Your task to perform on an android device: open sync settings in chrome Image 0: 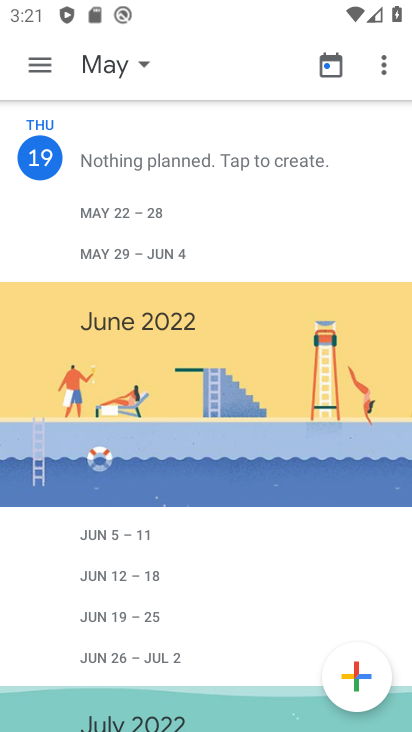
Step 0: press home button
Your task to perform on an android device: open sync settings in chrome Image 1: 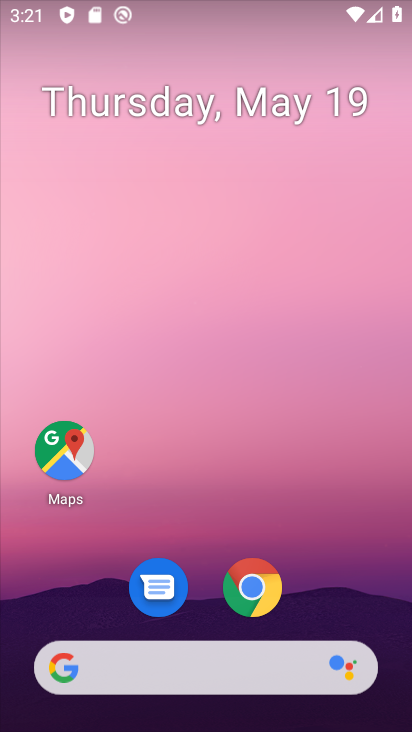
Step 1: drag from (338, 607) to (356, 109)
Your task to perform on an android device: open sync settings in chrome Image 2: 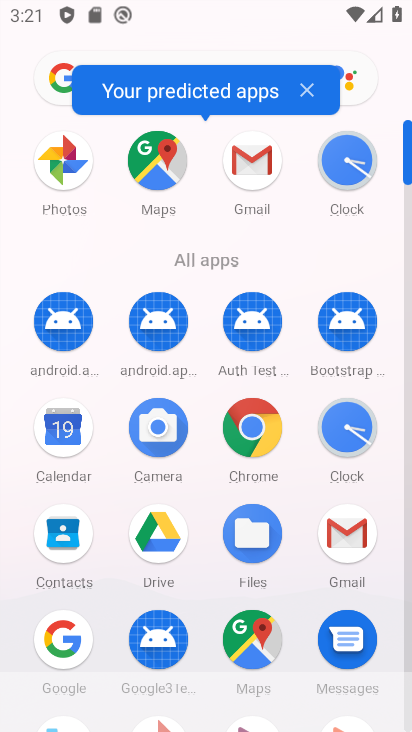
Step 2: click (268, 442)
Your task to perform on an android device: open sync settings in chrome Image 3: 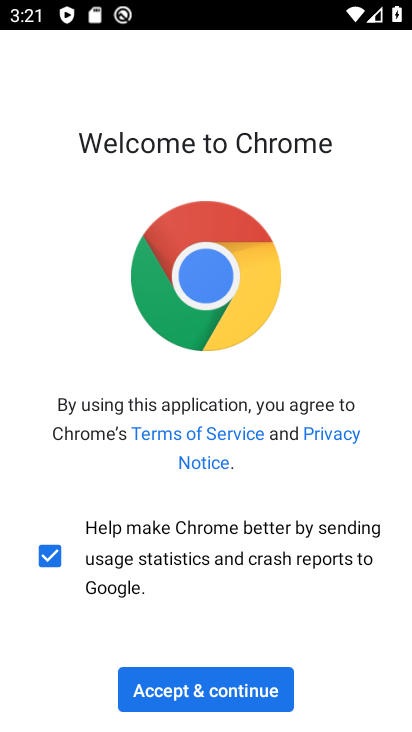
Step 3: click (275, 685)
Your task to perform on an android device: open sync settings in chrome Image 4: 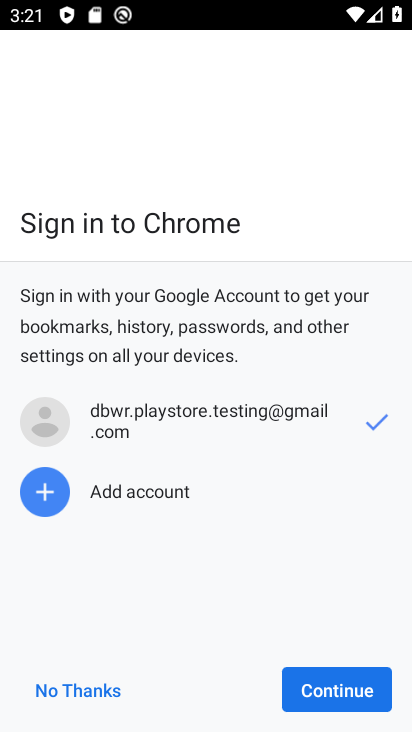
Step 4: click (303, 688)
Your task to perform on an android device: open sync settings in chrome Image 5: 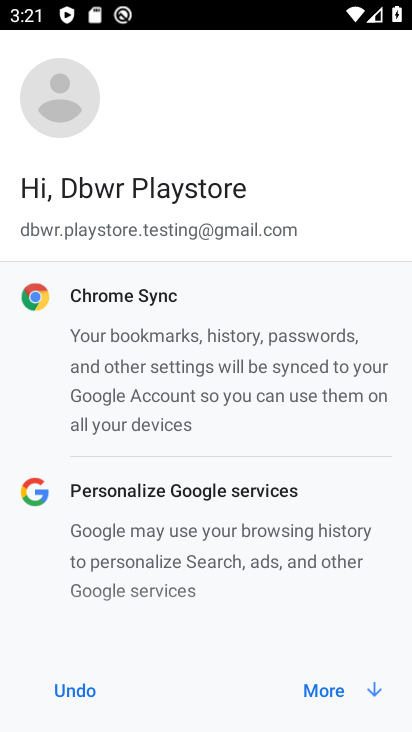
Step 5: click (303, 688)
Your task to perform on an android device: open sync settings in chrome Image 6: 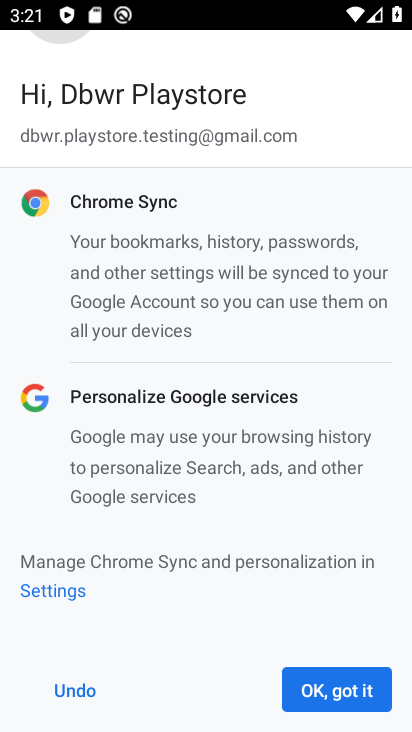
Step 6: click (303, 688)
Your task to perform on an android device: open sync settings in chrome Image 7: 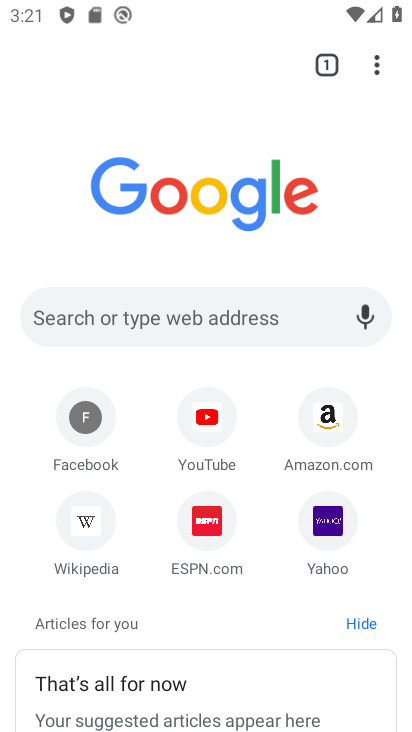
Step 7: click (378, 73)
Your task to perform on an android device: open sync settings in chrome Image 8: 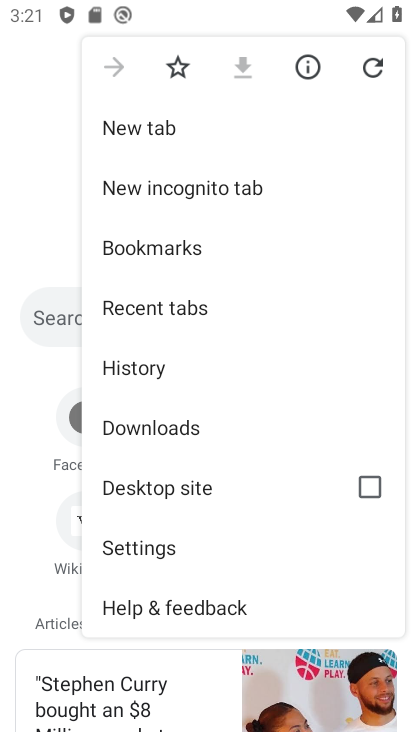
Step 8: drag from (299, 526) to (298, 408)
Your task to perform on an android device: open sync settings in chrome Image 9: 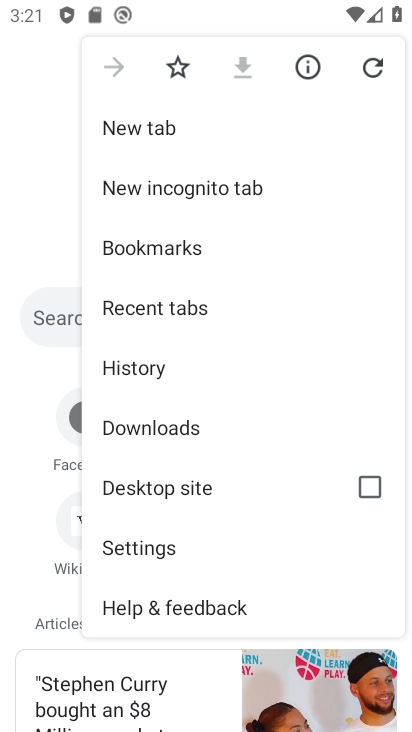
Step 9: click (172, 550)
Your task to perform on an android device: open sync settings in chrome Image 10: 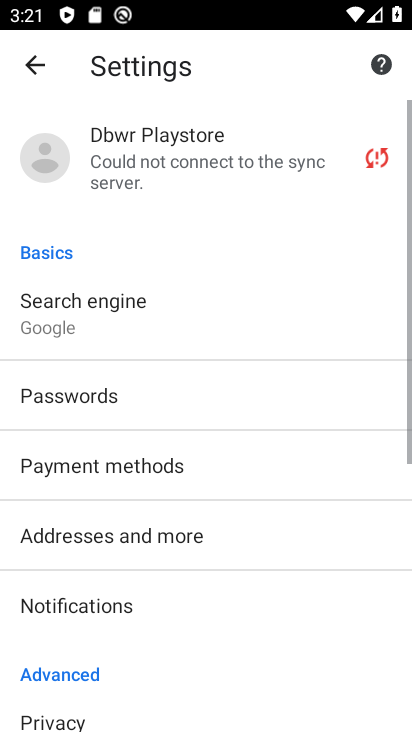
Step 10: drag from (279, 566) to (283, 441)
Your task to perform on an android device: open sync settings in chrome Image 11: 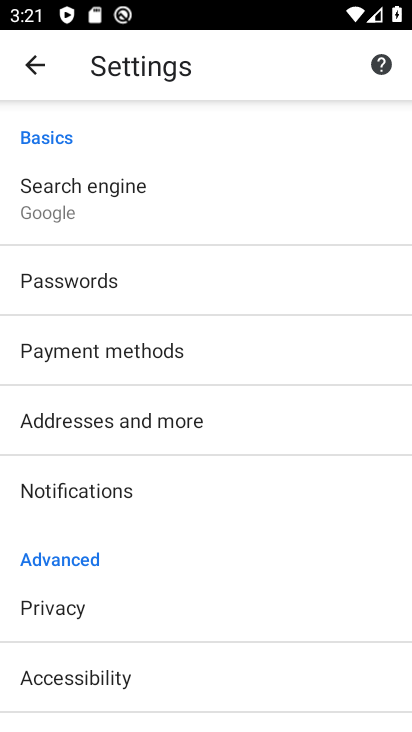
Step 11: drag from (300, 588) to (301, 456)
Your task to perform on an android device: open sync settings in chrome Image 12: 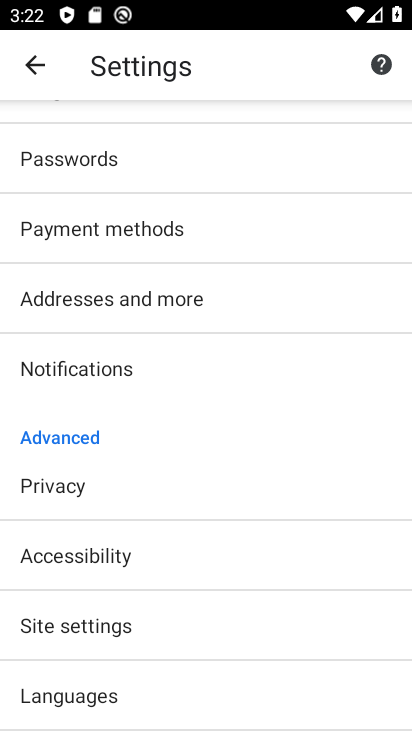
Step 12: drag from (297, 624) to (298, 504)
Your task to perform on an android device: open sync settings in chrome Image 13: 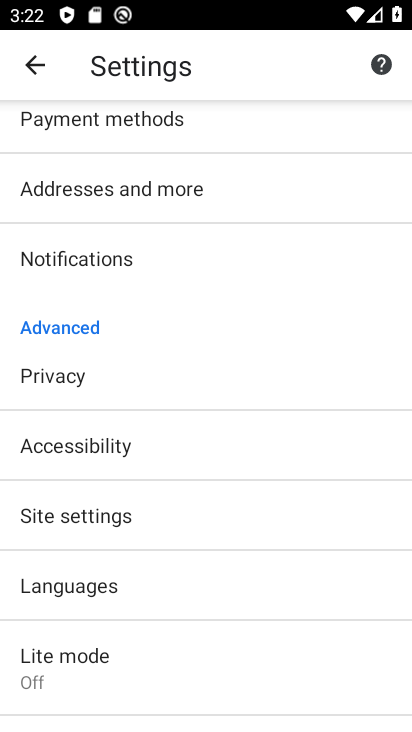
Step 13: drag from (304, 622) to (297, 496)
Your task to perform on an android device: open sync settings in chrome Image 14: 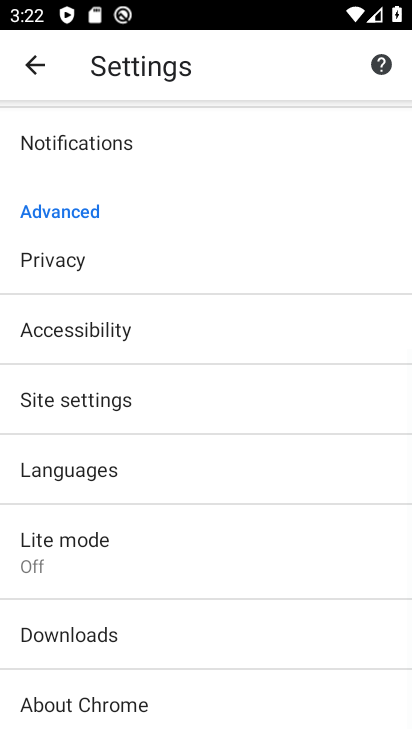
Step 14: drag from (294, 662) to (296, 553)
Your task to perform on an android device: open sync settings in chrome Image 15: 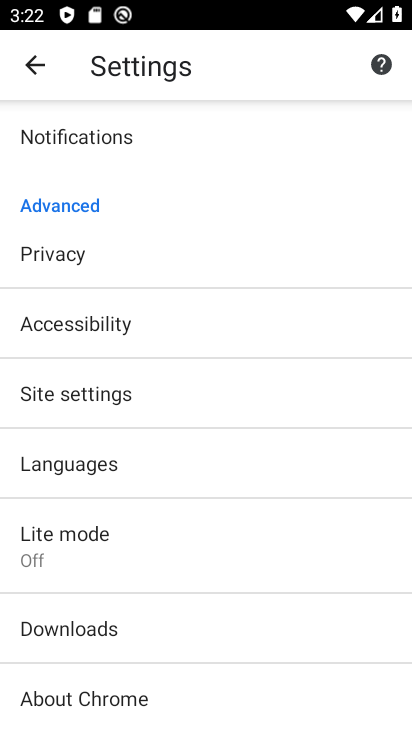
Step 15: click (244, 402)
Your task to perform on an android device: open sync settings in chrome Image 16: 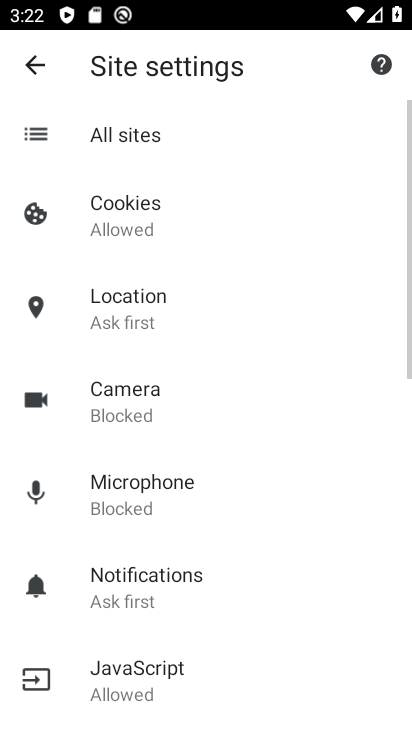
Step 16: drag from (289, 568) to (277, 483)
Your task to perform on an android device: open sync settings in chrome Image 17: 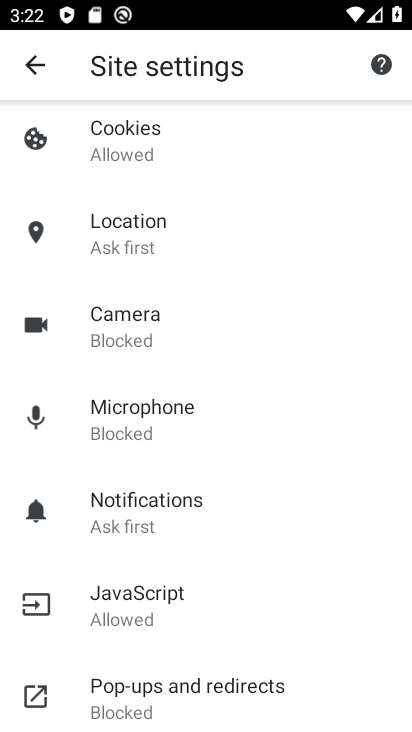
Step 17: drag from (314, 591) to (329, 482)
Your task to perform on an android device: open sync settings in chrome Image 18: 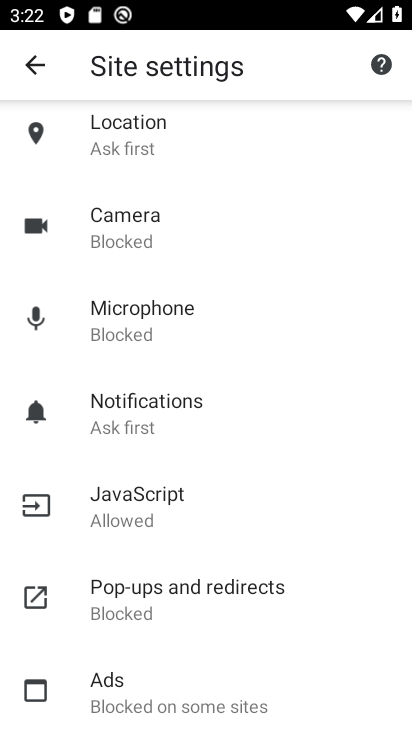
Step 18: drag from (337, 597) to (336, 495)
Your task to perform on an android device: open sync settings in chrome Image 19: 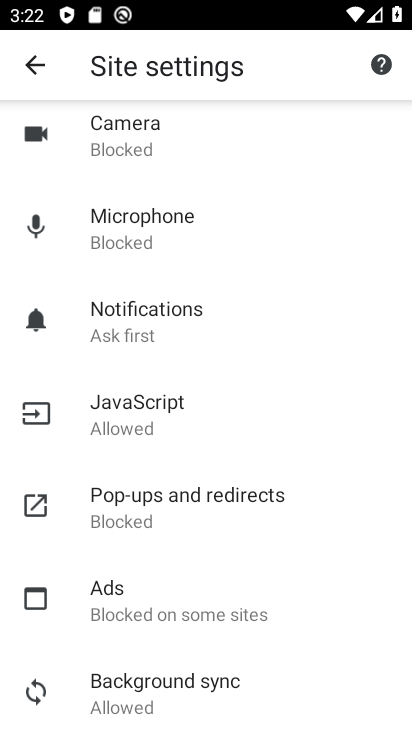
Step 19: drag from (340, 638) to (340, 528)
Your task to perform on an android device: open sync settings in chrome Image 20: 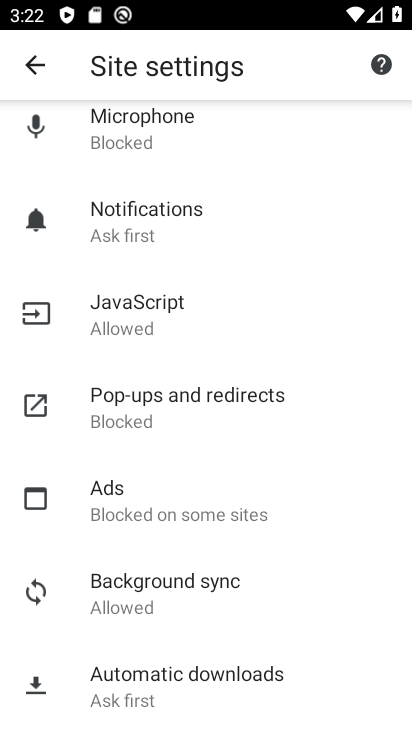
Step 20: click (302, 615)
Your task to perform on an android device: open sync settings in chrome Image 21: 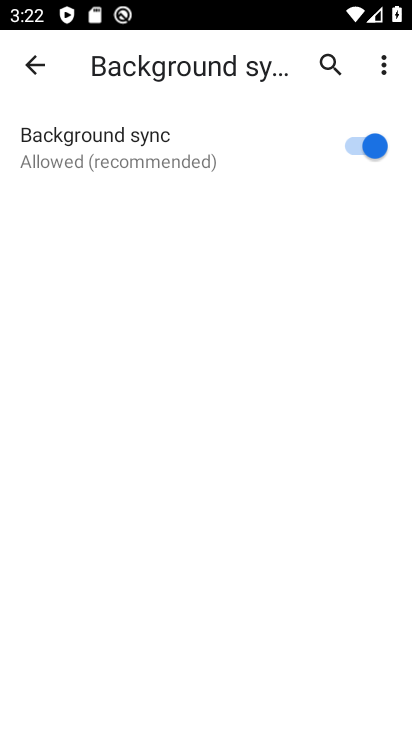
Step 21: task complete